Your task to perform on an android device: Play the latest video from the Wall Street Journal Image 0: 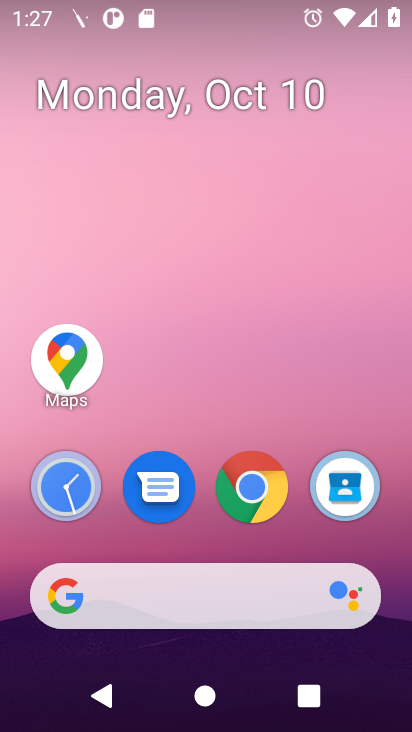
Step 0: click (260, 504)
Your task to perform on an android device: Play the latest video from the Wall Street Journal Image 1: 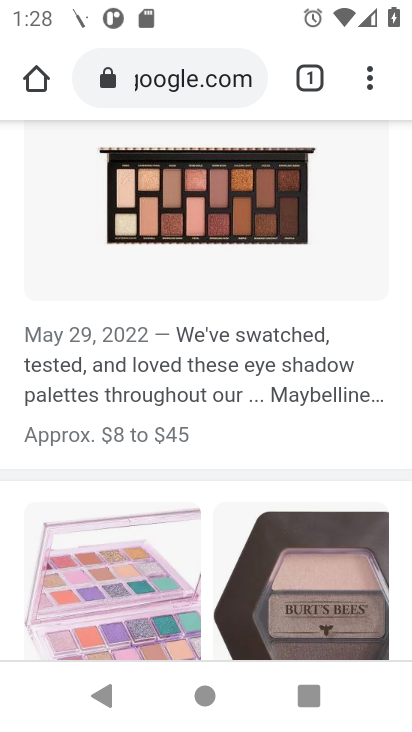
Step 1: click (215, 92)
Your task to perform on an android device: Play the latest video from the Wall Street Journal Image 2: 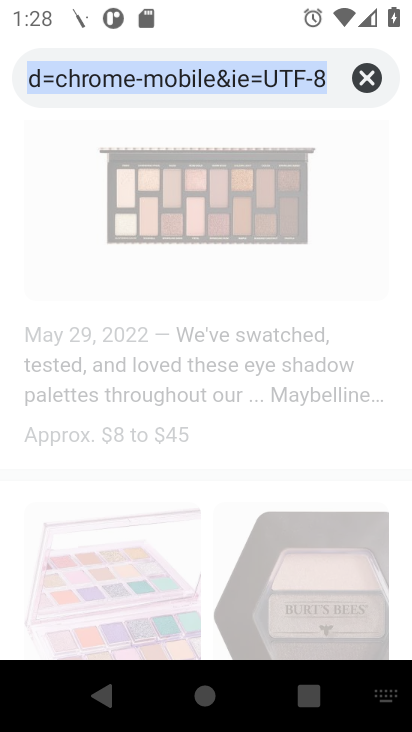
Step 2: type "latest video from the Wall Street Journal"
Your task to perform on an android device: Play the latest video from the Wall Street Journal Image 3: 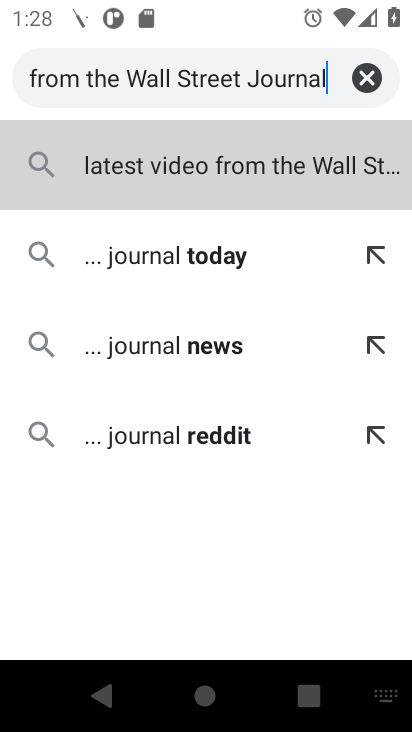
Step 3: press enter
Your task to perform on an android device: Play the latest video from the Wall Street Journal Image 4: 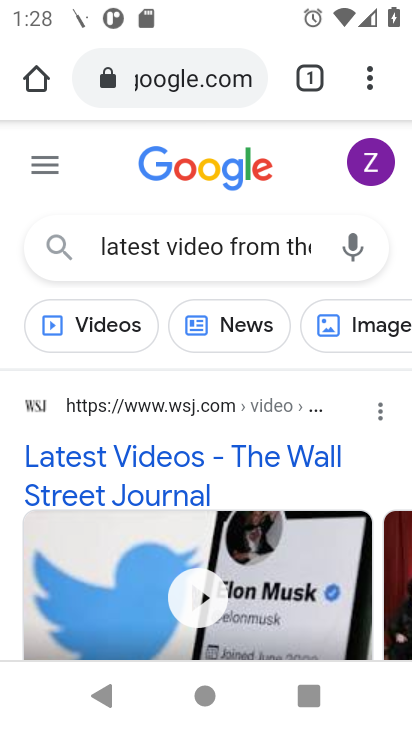
Step 4: drag from (355, 467) to (351, 218)
Your task to perform on an android device: Play the latest video from the Wall Street Journal Image 5: 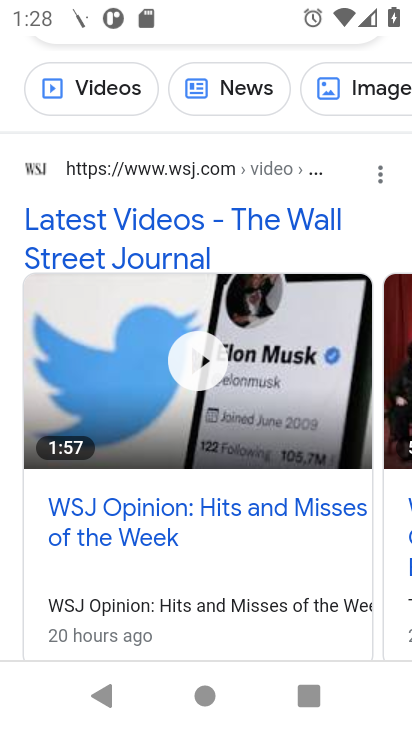
Step 5: drag from (254, 514) to (285, 224)
Your task to perform on an android device: Play the latest video from the Wall Street Journal Image 6: 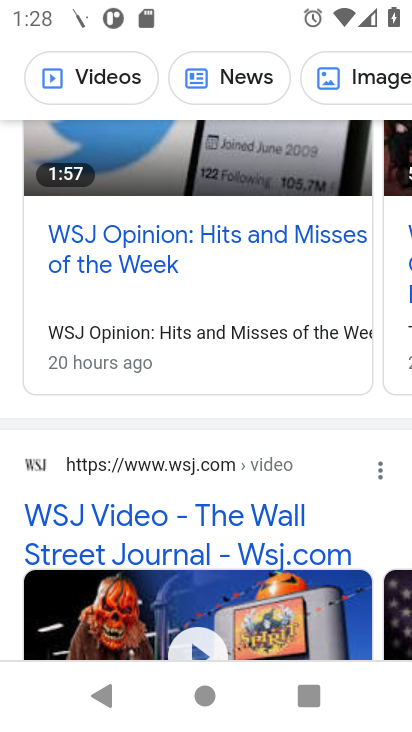
Step 6: click (109, 79)
Your task to perform on an android device: Play the latest video from the Wall Street Journal Image 7: 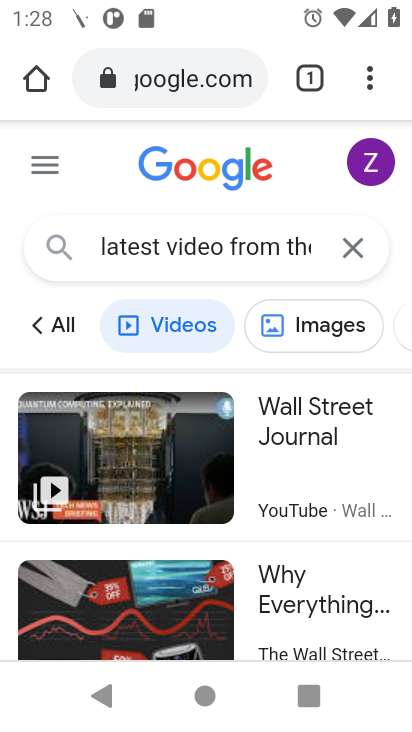
Step 7: drag from (291, 555) to (317, 299)
Your task to perform on an android device: Play the latest video from the Wall Street Journal Image 8: 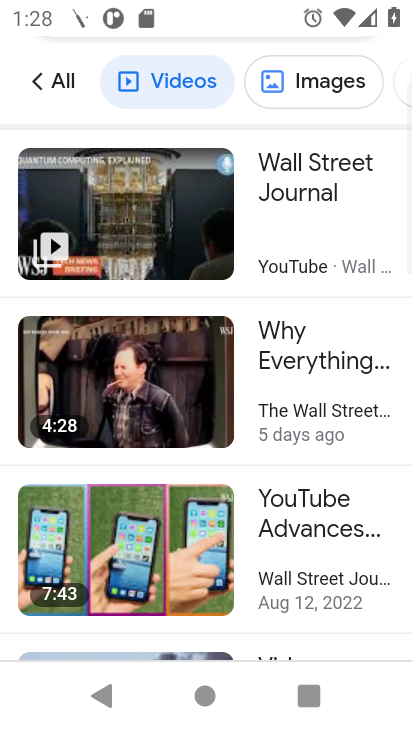
Step 8: drag from (335, 532) to (331, 380)
Your task to perform on an android device: Play the latest video from the Wall Street Journal Image 9: 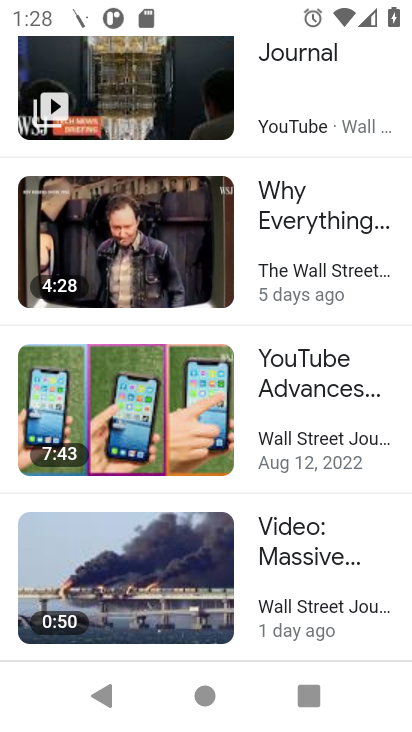
Step 9: drag from (330, 247) to (341, 566)
Your task to perform on an android device: Play the latest video from the Wall Street Journal Image 10: 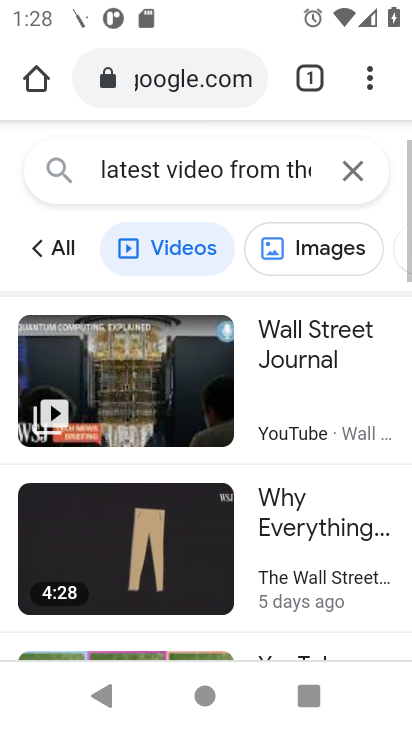
Step 10: drag from (274, 298) to (274, 463)
Your task to perform on an android device: Play the latest video from the Wall Street Journal Image 11: 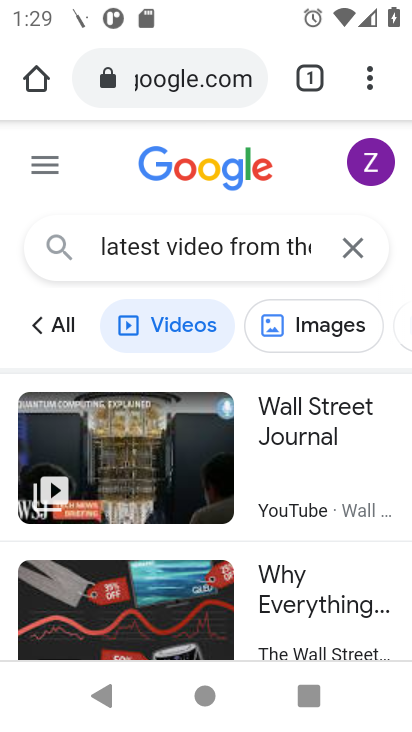
Step 11: click (159, 481)
Your task to perform on an android device: Play the latest video from the Wall Street Journal Image 12: 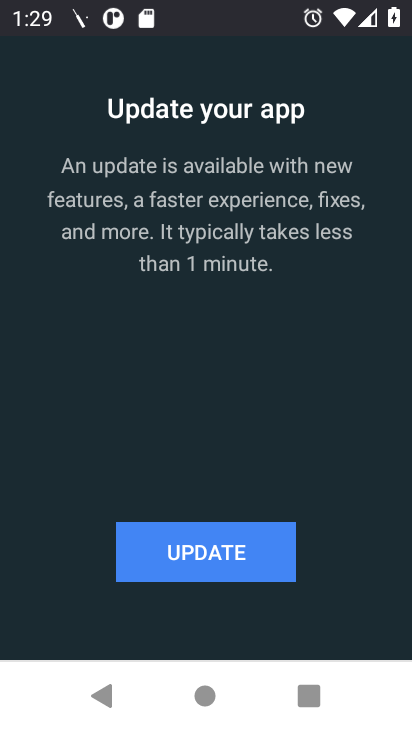
Step 12: click (249, 565)
Your task to perform on an android device: Play the latest video from the Wall Street Journal Image 13: 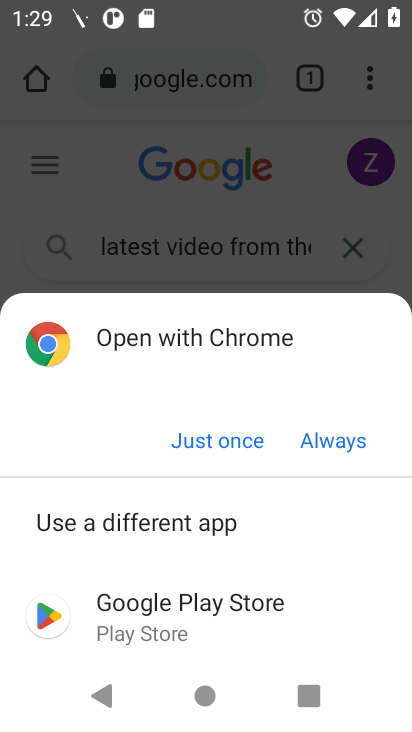
Step 13: click (240, 447)
Your task to perform on an android device: Play the latest video from the Wall Street Journal Image 14: 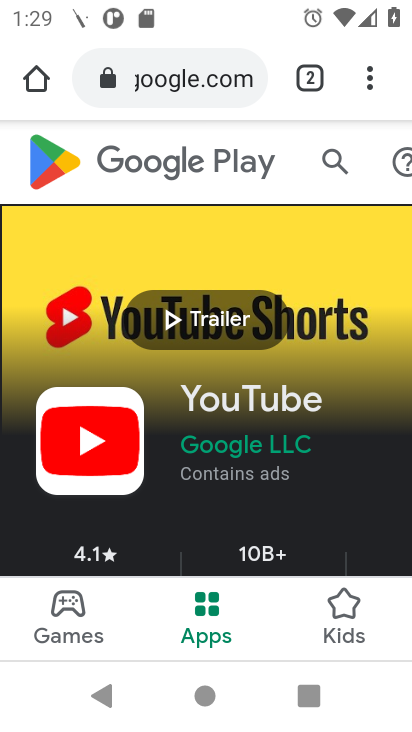
Step 14: drag from (231, 541) to (218, 346)
Your task to perform on an android device: Play the latest video from the Wall Street Journal Image 15: 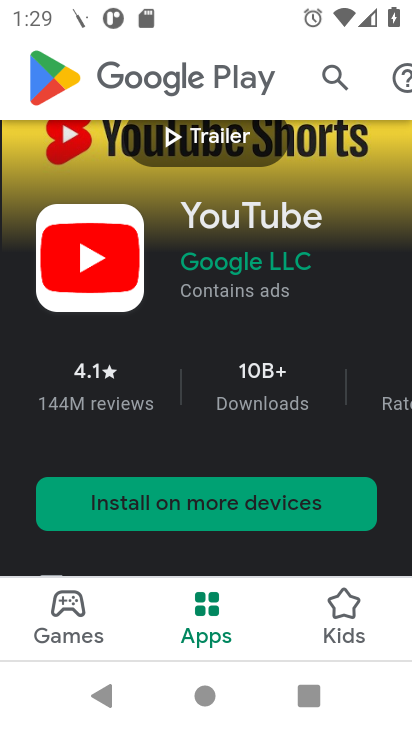
Step 15: click (228, 511)
Your task to perform on an android device: Play the latest video from the Wall Street Journal Image 16: 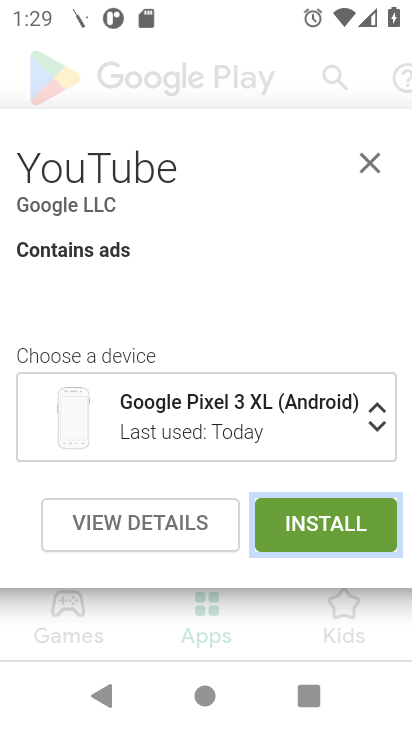
Step 16: click (316, 537)
Your task to perform on an android device: Play the latest video from the Wall Street Journal Image 17: 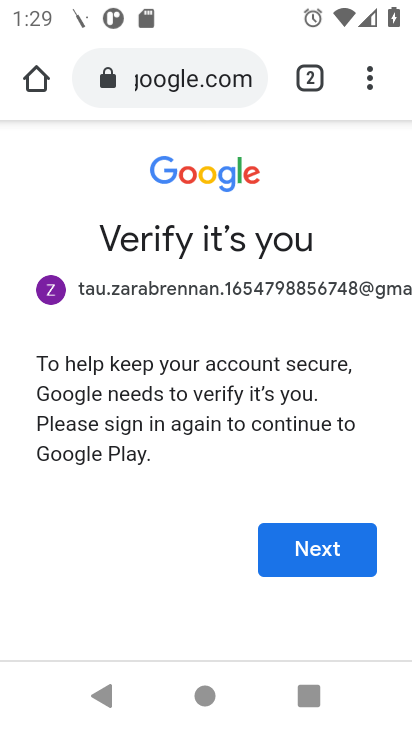
Step 17: click (321, 568)
Your task to perform on an android device: Play the latest video from the Wall Street Journal Image 18: 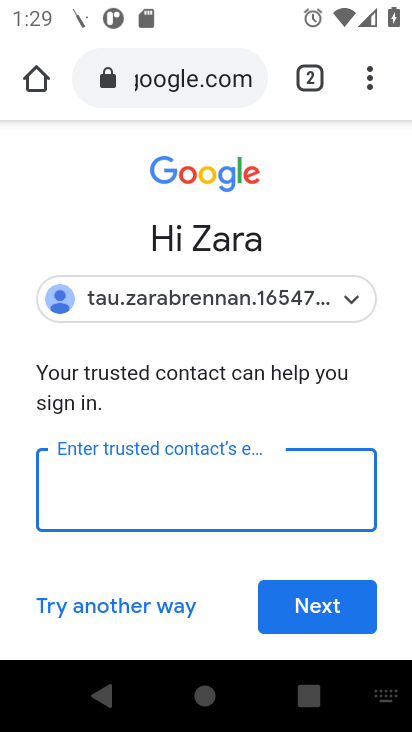
Step 18: drag from (203, 556) to (171, 308)
Your task to perform on an android device: Play the latest video from the Wall Street Journal Image 19: 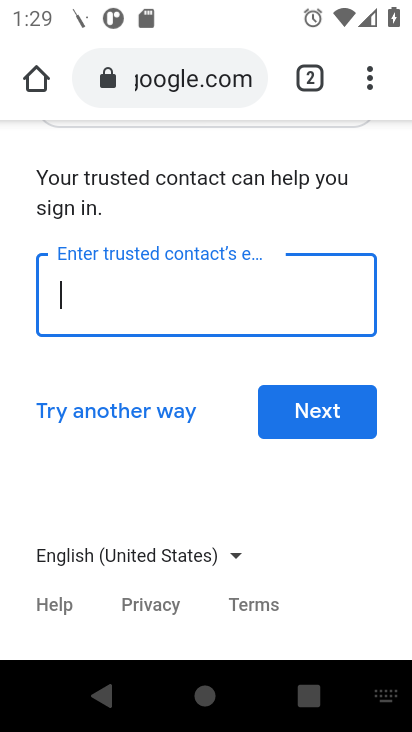
Step 19: click (169, 425)
Your task to perform on an android device: Play the latest video from the Wall Street Journal Image 20: 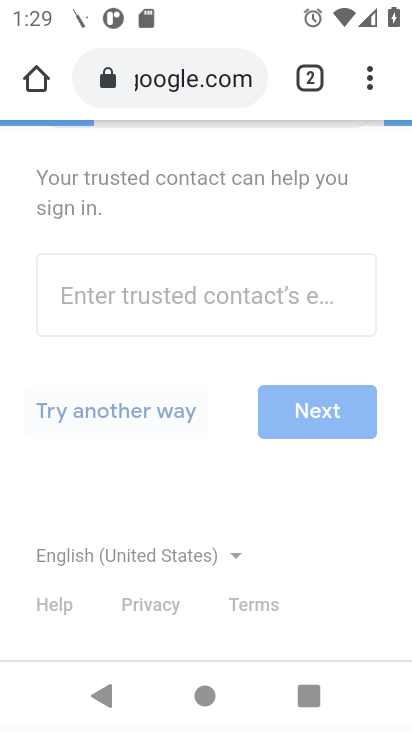
Step 20: click (161, 404)
Your task to perform on an android device: Play the latest video from the Wall Street Journal Image 21: 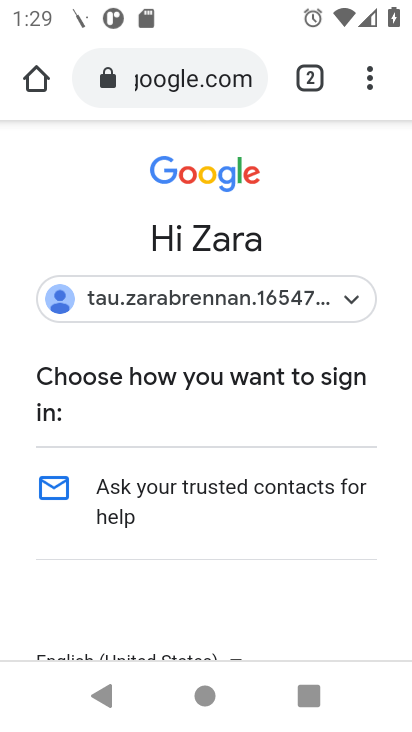
Step 21: drag from (221, 511) to (195, 287)
Your task to perform on an android device: Play the latest video from the Wall Street Journal Image 22: 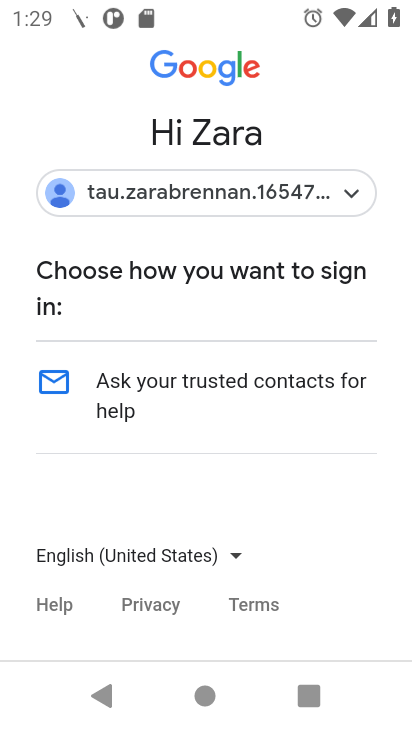
Step 22: drag from (226, 334) to (259, 551)
Your task to perform on an android device: Play the latest video from the Wall Street Journal Image 23: 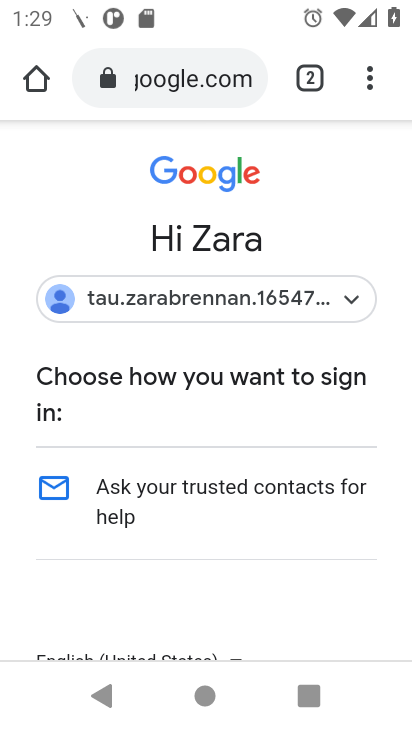
Step 23: click (309, 291)
Your task to perform on an android device: Play the latest video from the Wall Street Journal Image 24: 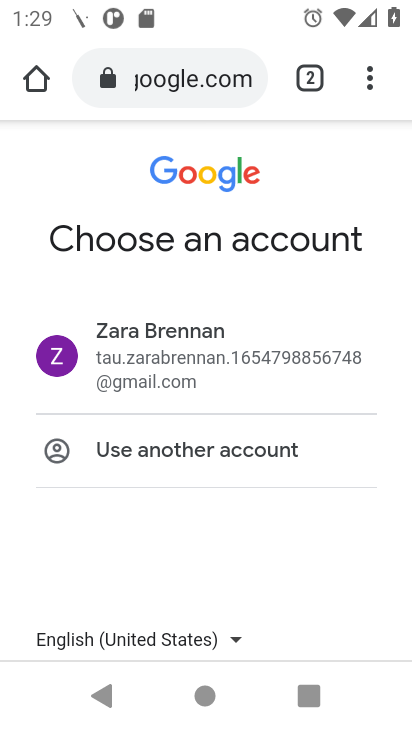
Step 24: task complete